Your task to perform on an android device: turn notification dots off Image 0: 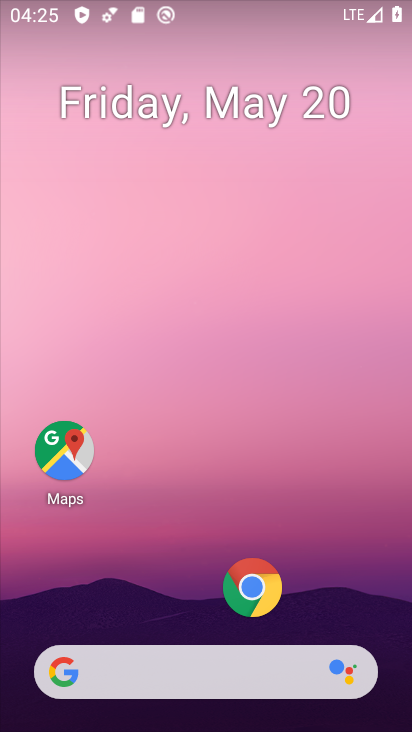
Step 0: drag from (164, 620) to (339, 29)
Your task to perform on an android device: turn notification dots off Image 1: 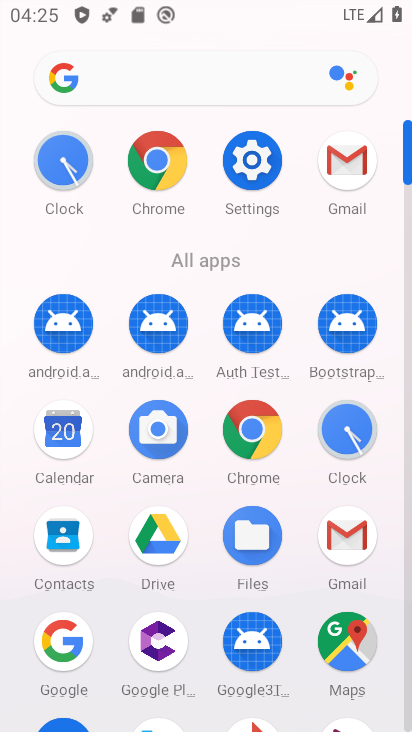
Step 1: click (254, 174)
Your task to perform on an android device: turn notification dots off Image 2: 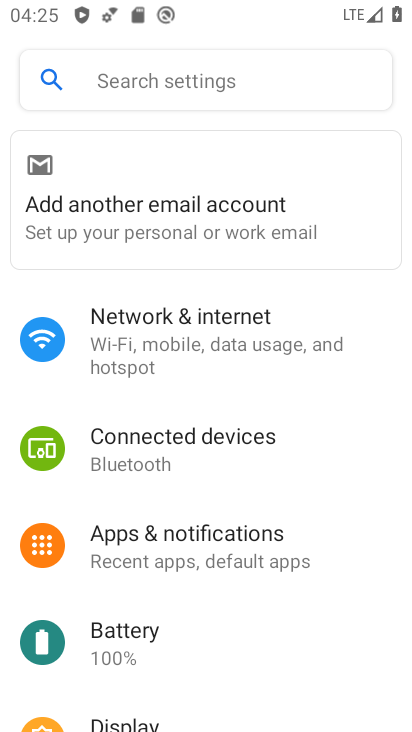
Step 2: click (115, 513)
Your task to perform on an android device: turn notification dots off Image 3: 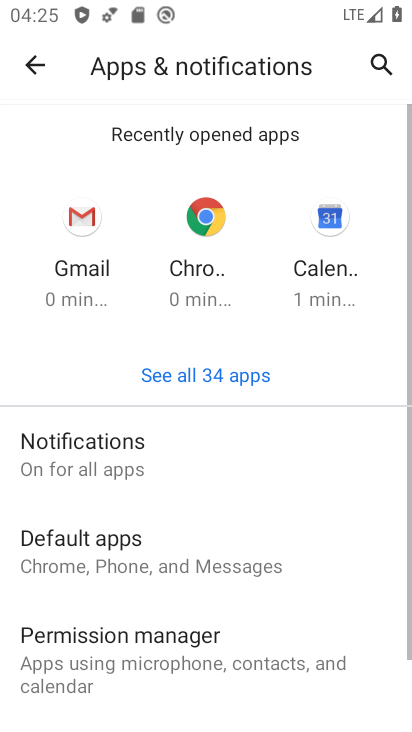
Step 3: click (124, 449)
Your task to perform on an android device: turn notification dots off Image 4: 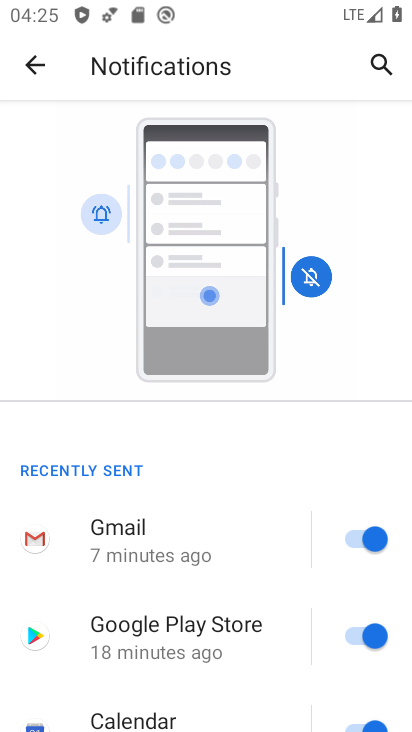
Step 4: drag from (142, 345) to (146, 298)
Your task to perform on an android device: turn notification dots off Image 5: 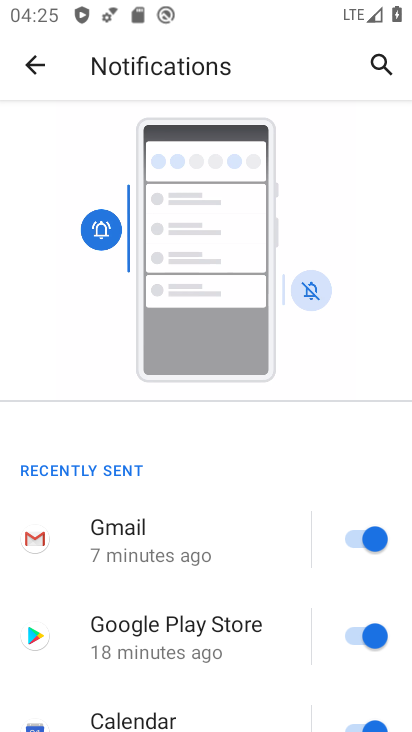
Step 5: drag from (174, 631) to (223, 342)
Your task to perform on an android device: turn notification dots off Image 6: 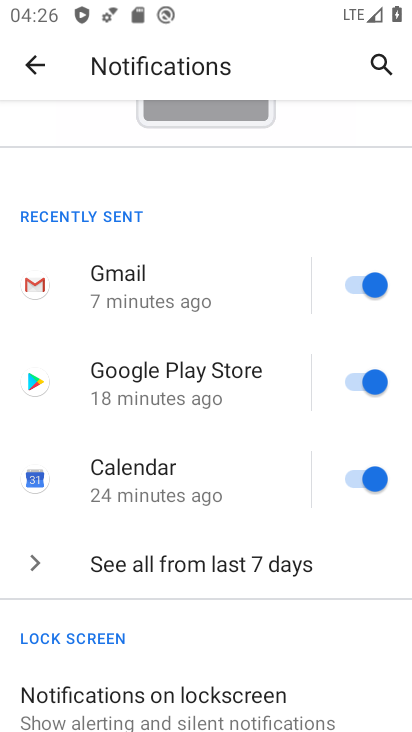
Step 6: drag from (170, 695) to (185, 250)
Your task to perform on an android device: turn notification dots off Image 7: 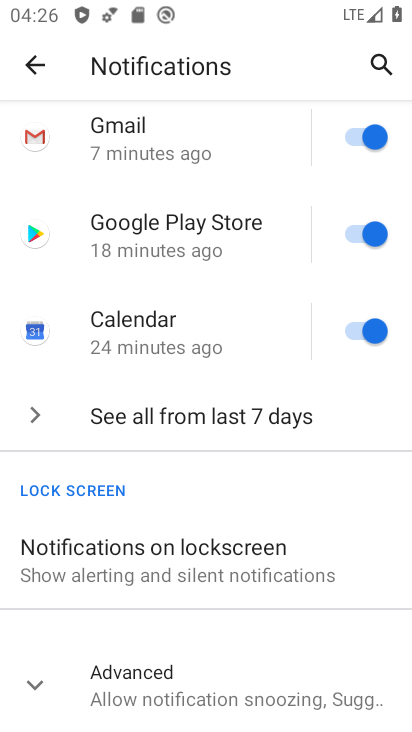
Step 7: click (184, 569)
Your task to perform on an android device: turn notification dots off Image 8: 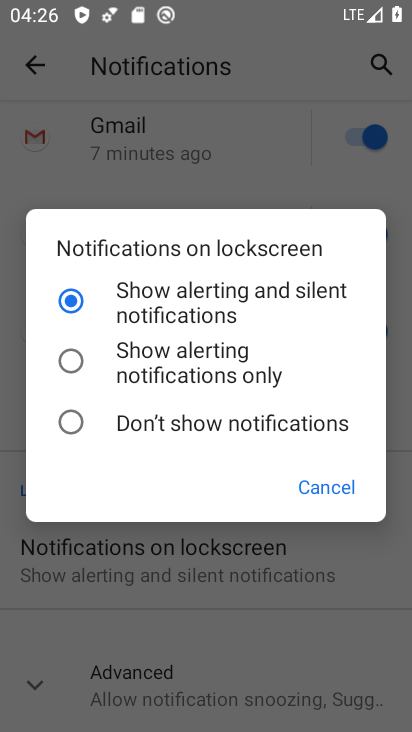
Step 8: click (356, 491)
Your task to perform on an android device: turn notification dots off Image 9: 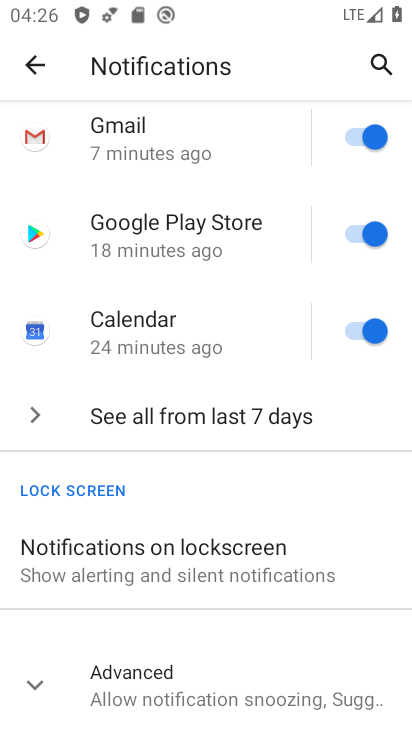
Step 9: click (116, 668)
Your task to perform on an android device: turn notification dots off Image 10: 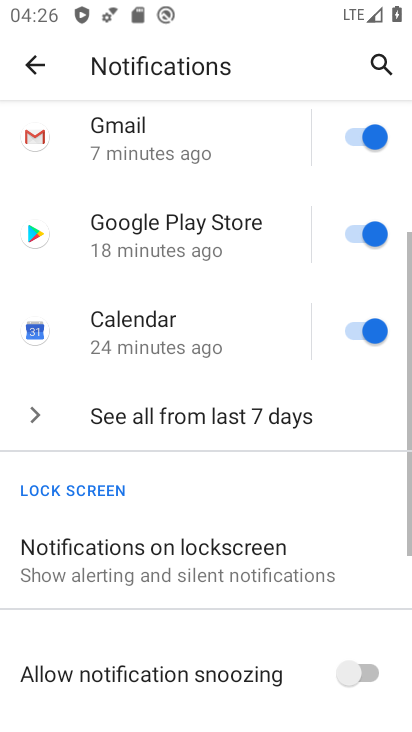
Step 10: drag from (116, 668) to (180, 259)
Your task to perform on an android device: turn notification dots off Image 11: 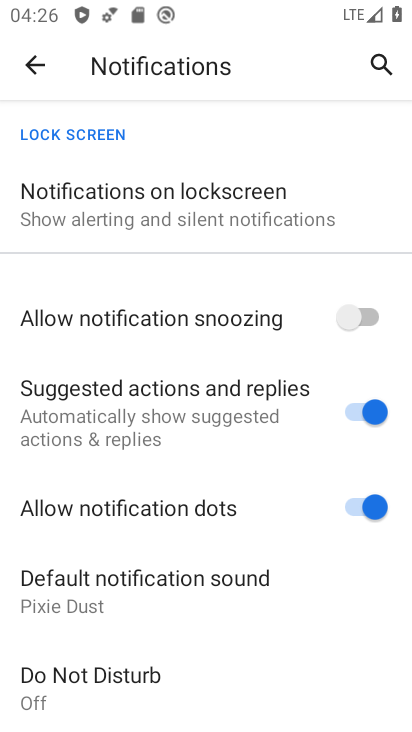
Step 11: click (376, 496)
Your task to perform on an android device: turn notification dots off Image 12: 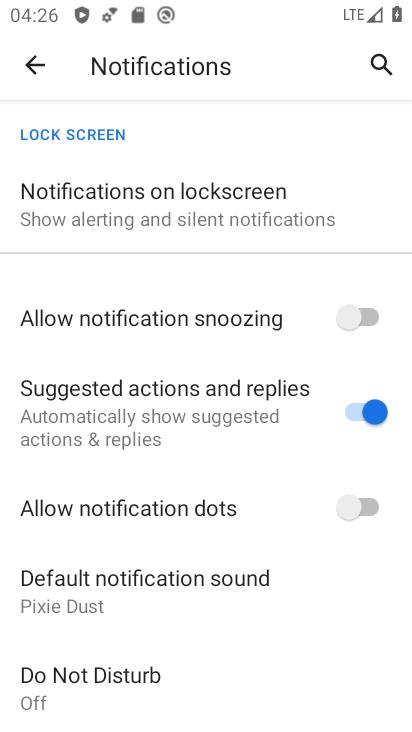
Step 12: task complete